Your task to perform on an android device: Go to Yahoo.com Image 0: 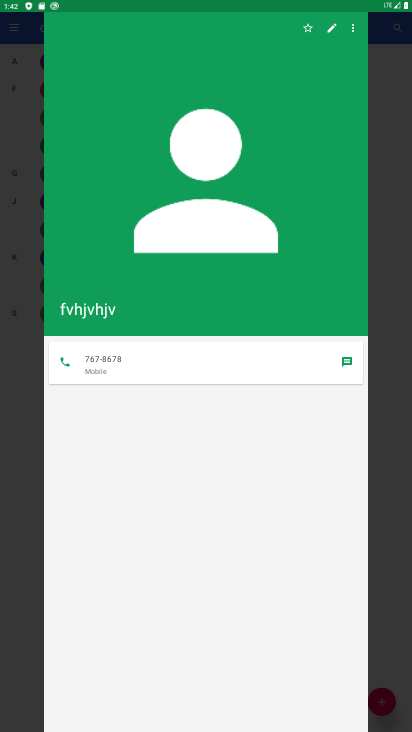
Step 0: press home button
Your task to perform on an android device: Go to Yahoo.com Image 1: 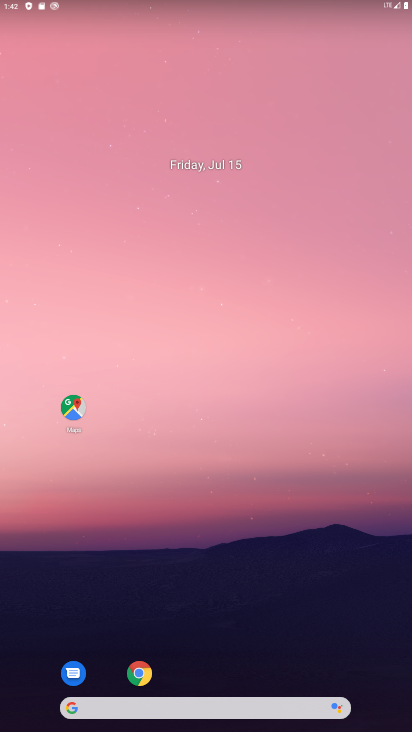
Step 1: drag from (283, 556) to (258, 160)
Your task to perform on an android device: Go to Yahoo.com Image 2: 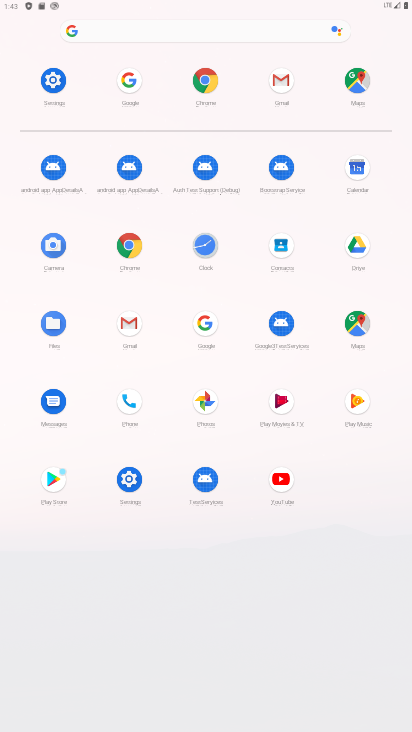
Step 2: click (201, 85)
Your task to perform on an android device: Go to Yahoo.com Image 3: 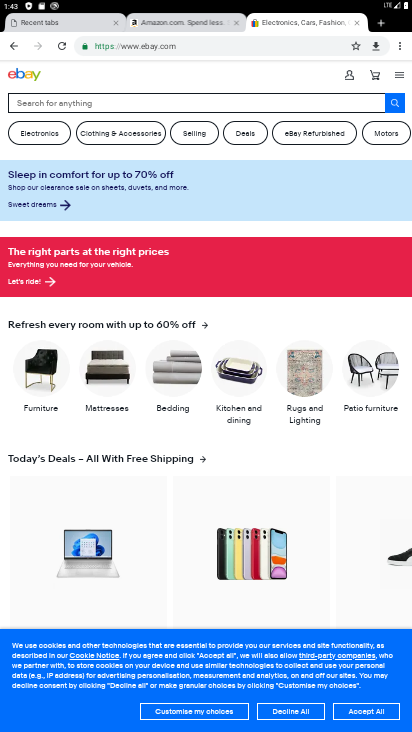
Step 3: click (196, 43)
Your task to perform on an android device: Go to Yahoo.com Image 4: 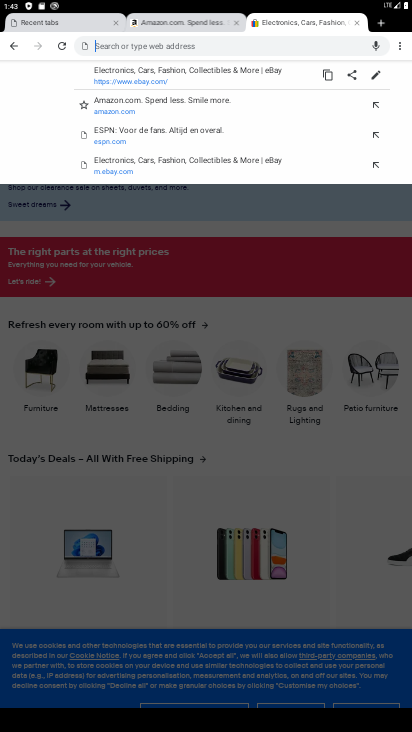
Step 4: type "Yahoo.com"
Your task to perform on an android device: Go to Yahoo.com Image 5: 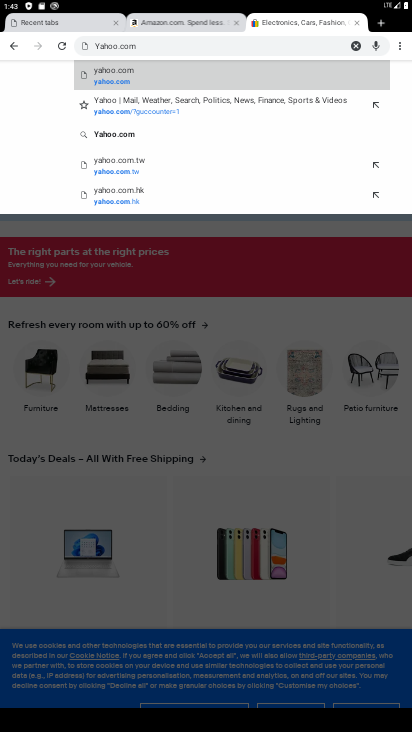
Step 5: click (144, 65)
Your task to perform on an android device: Go to Yahoo.com Image 6: 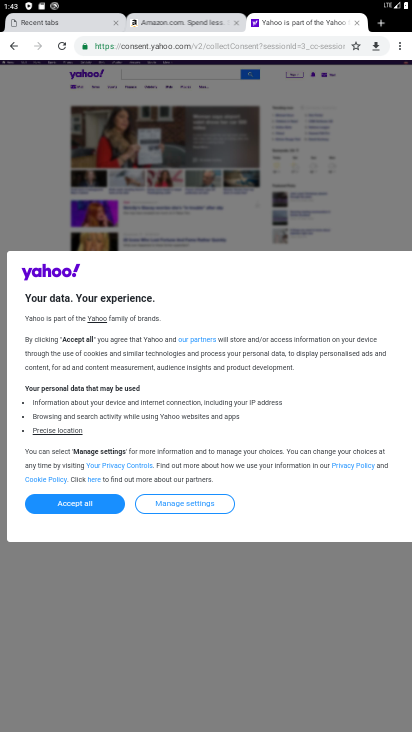
Step 6: task complete